Your task to perform on an android device: show emergency info Image 0: 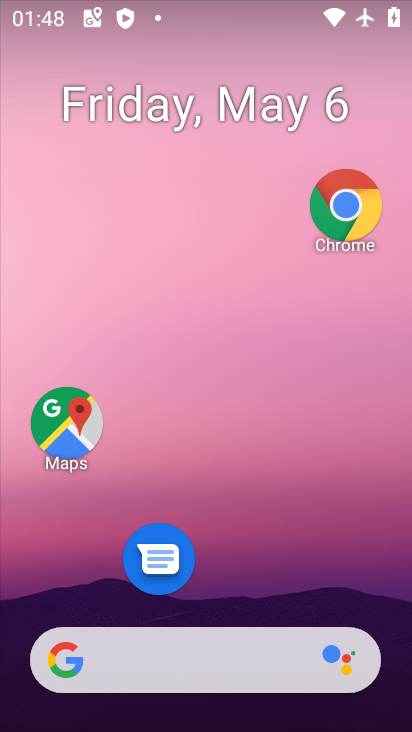
Step 0: drag from (160, 654) to (295, 121)
Your task to perform on an android device: show emergency info Image 1: 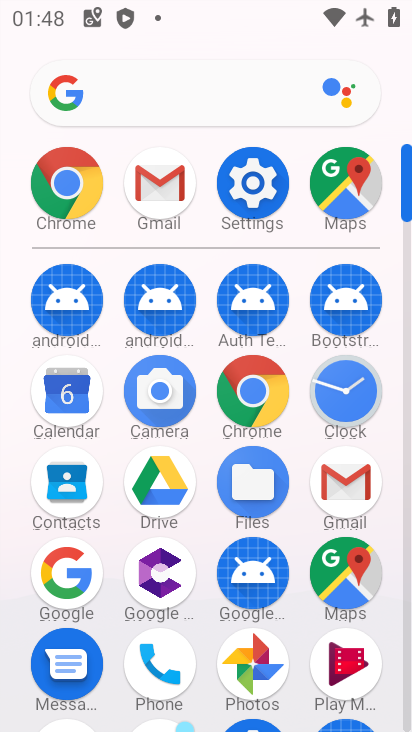
Step 1: click (240, 182)
Your task to perform on an android device: show emergency info Image 2: 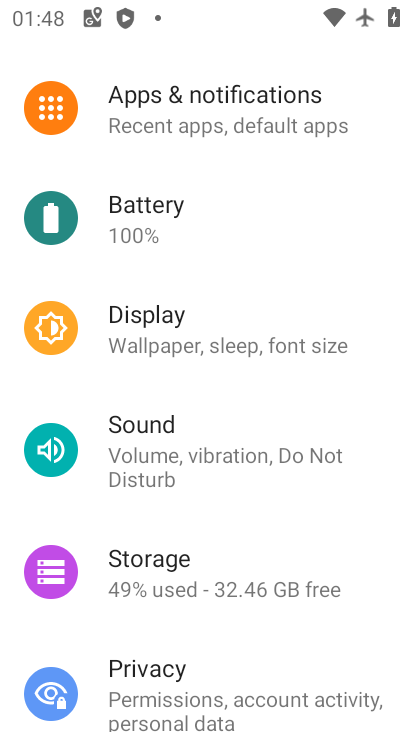
Step 2: drag from (169, 640) to (280, 245)
Your task to perform on an android device: show emergency info Image 3: 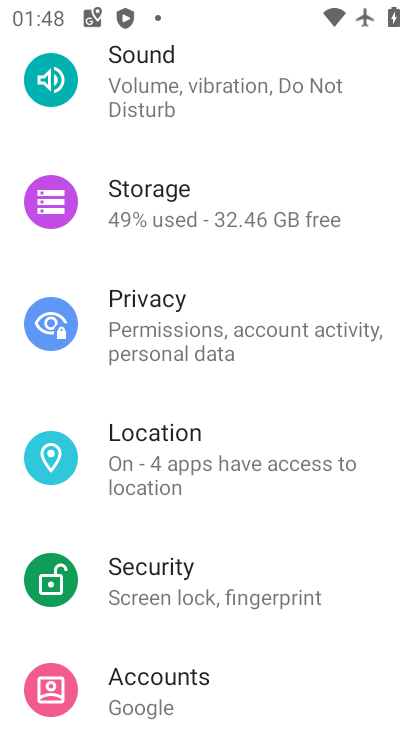
Step 3: drag from (216, 622) to (370, 160)
Your task to perform on an android device: show emergency info Image 4: 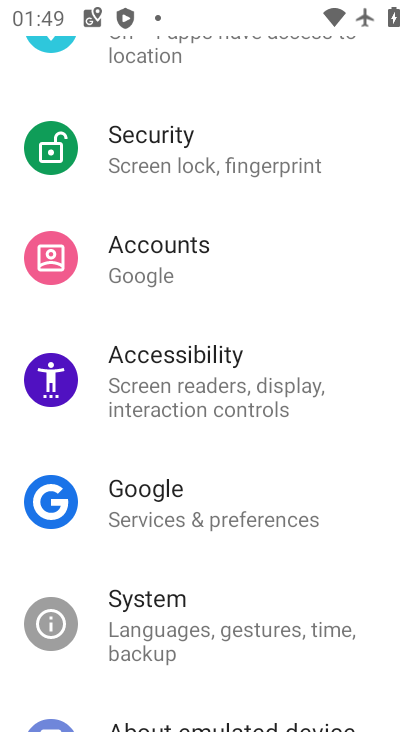
Step 4: drag from (210, 588) to (318, 110)
Your task to perform on an android device: show emergency info Image 5: 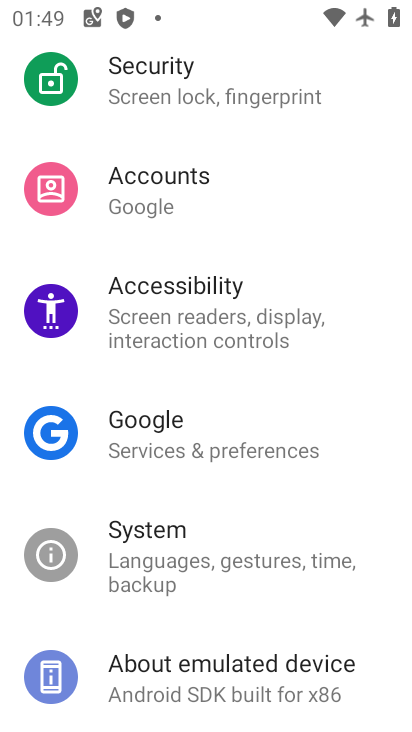
Step 5: click (196, 663)
Your task to perform on an android device: show emergency info Image 6: 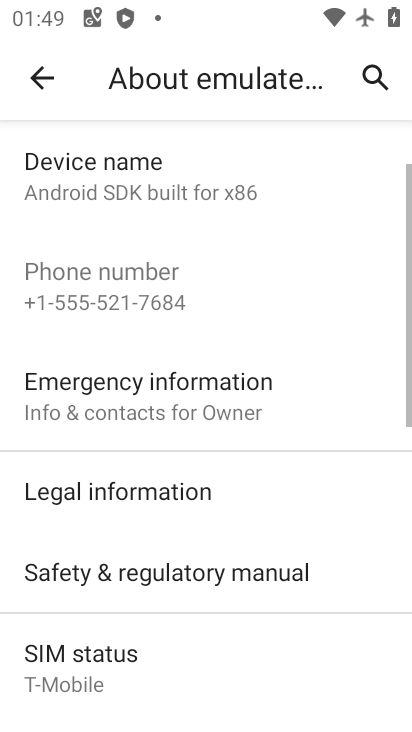
Step 6: click (201, 380)
Your task to perform on an android device: show emergency info Image 7: 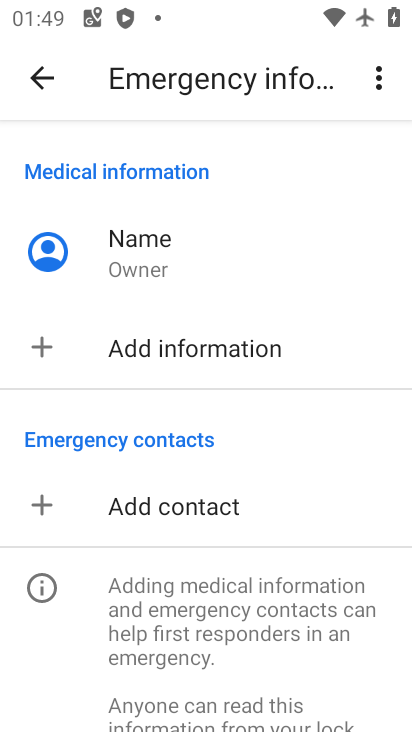
Step 7: task complete